Your task to perform on an android device: Open accessibility settings Image 0: 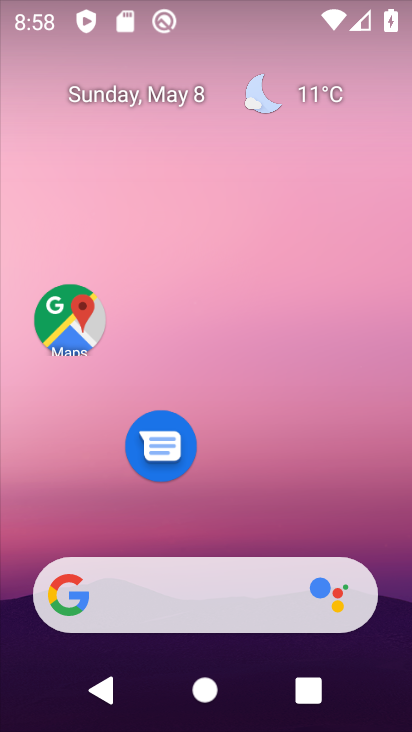
Step 0: drag from (315, 497) to (317, 15)
Your task to perform on an android device: Open accessibility settings Image 1: 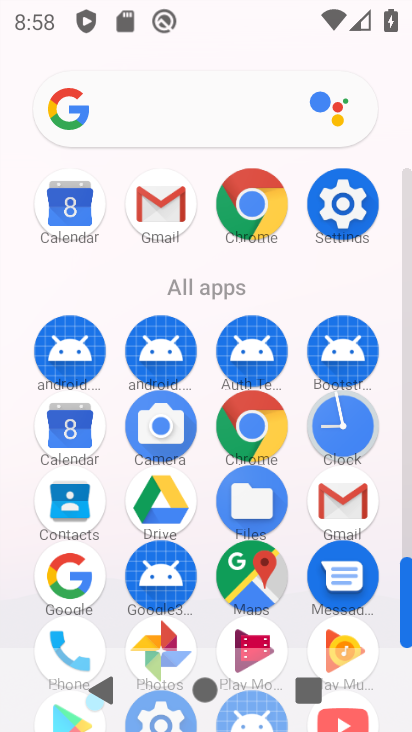
Step 1: click (346, 197)
Your task to perform on an android device: Open accessibility settings Image 2: 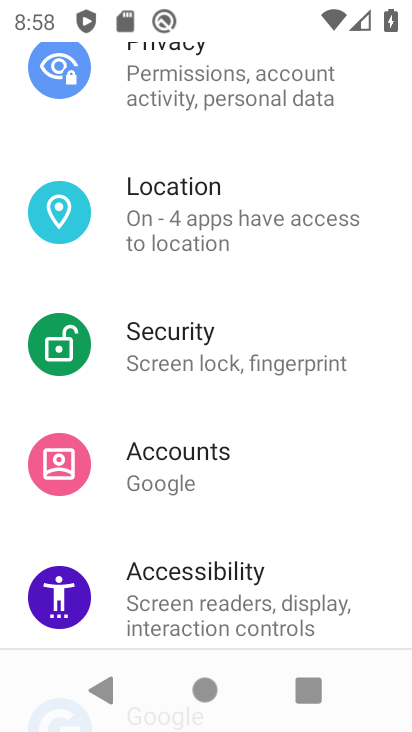
Step 2: click (190, 597)
Your task to perform on an android device: Open accessibility settings Image 3: 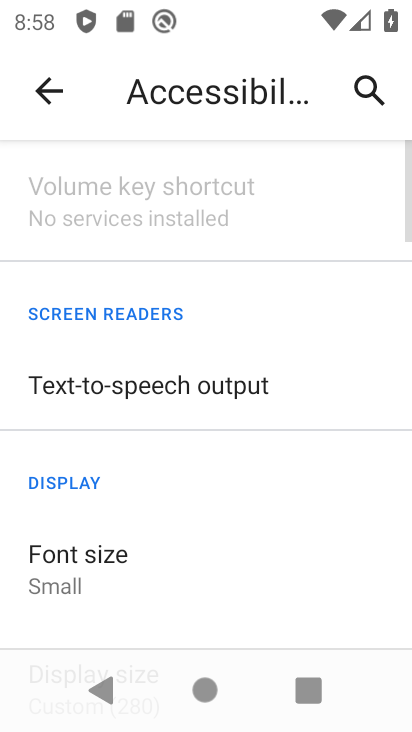
Step 3: task complete